Your task to perform on an android device: change your default location settings in chrome Image 0: 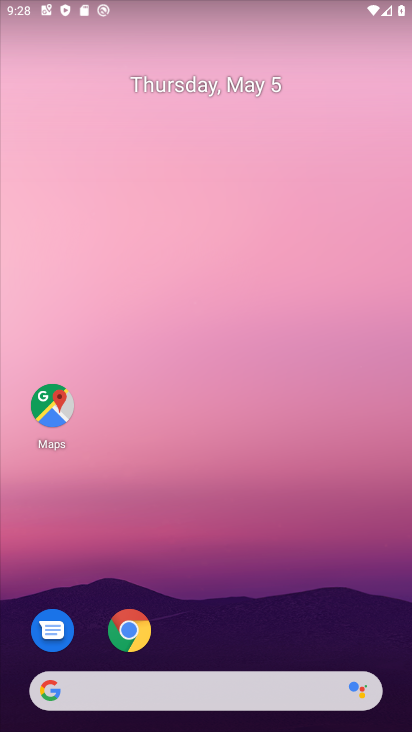
Step 0: click (136, 632)
Your task to perform on an android device: change your default location settings in chrome Image 1: 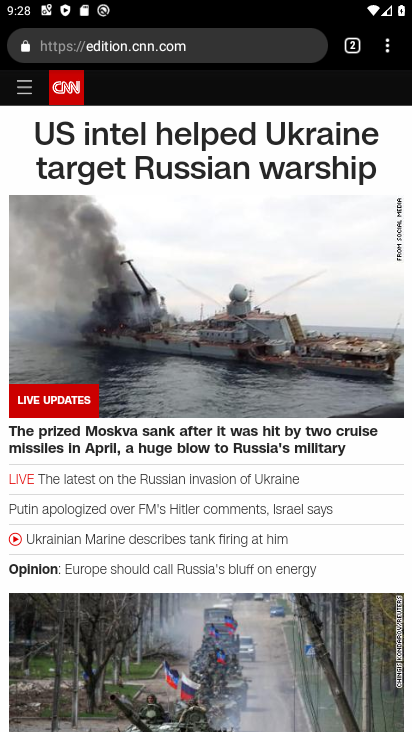
Step 1: click (387, 43)
Your task to perform on an android device: change your default location settings in chrome Image 2: 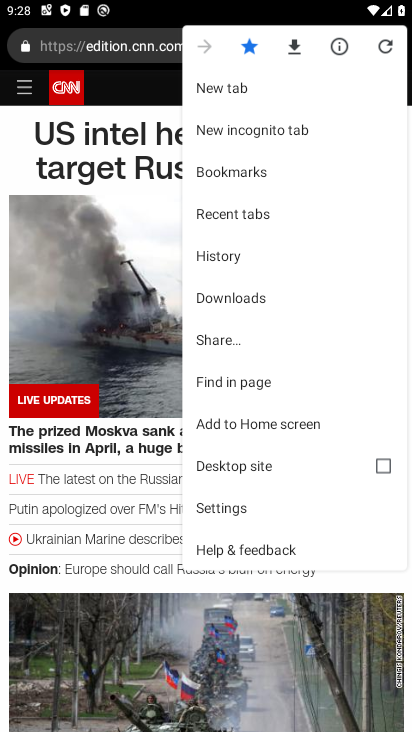
Step 2: click (250, 505)
Your task to perform on an android device: change your default location settings in chrome Image 3: 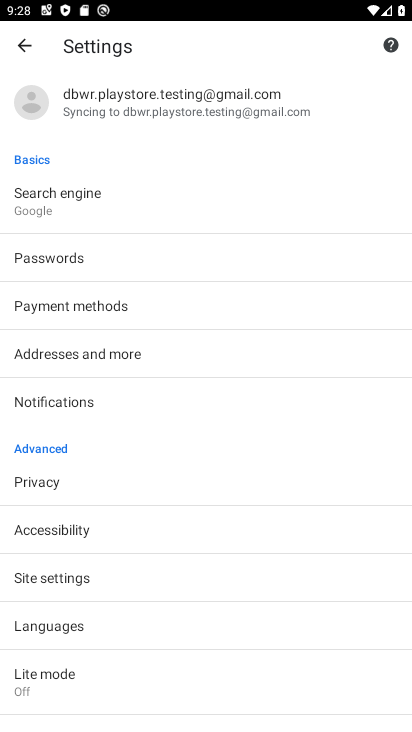
Step 3: drag from (98, 562) to (163, 291)
Your task to perform on an android device: change your default location settings in chrome Image 4: 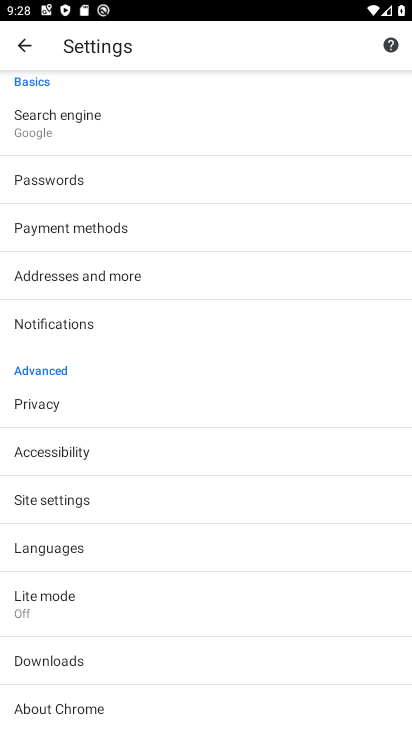
Step 4: click (83, 503)
Your task to perform on an android device: change your default location settings in chrome Image 5: 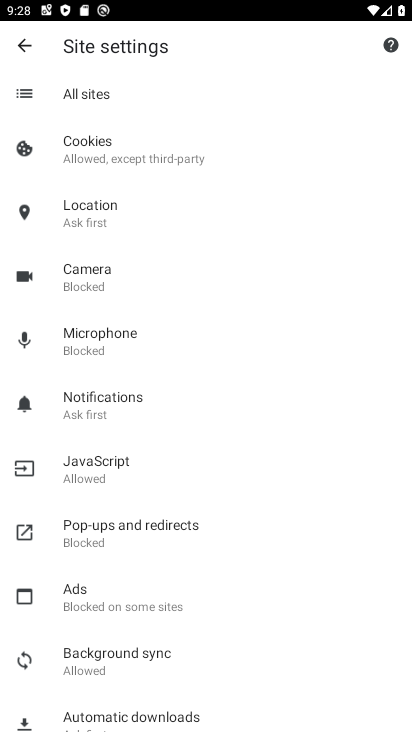
Step 5: click (171, 200)
Your task to perform on an android device: change your default location settings in chrome Image 6: 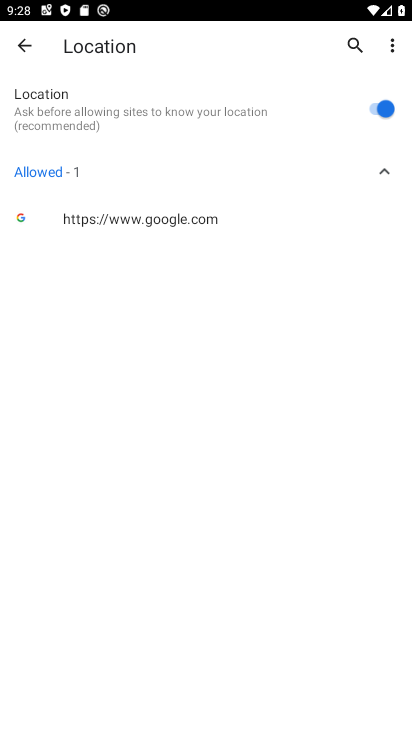
Step 6: click (376, 109)
Your task to perform on an android device: change your default location settings in chrome Image 7: 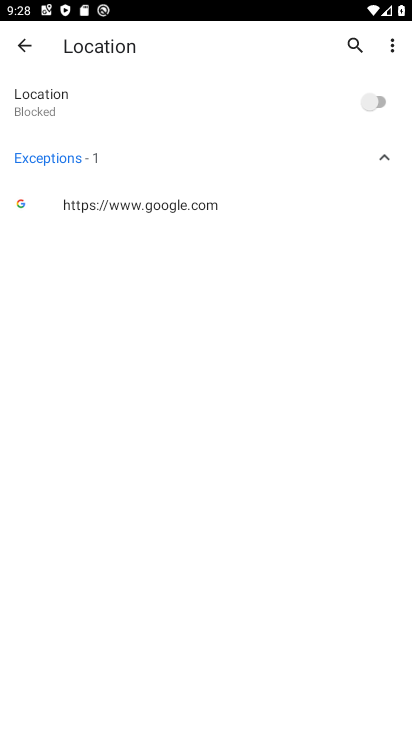
Step 7: task complete